Your task to perform on an android device: toggle wifi Image 0: 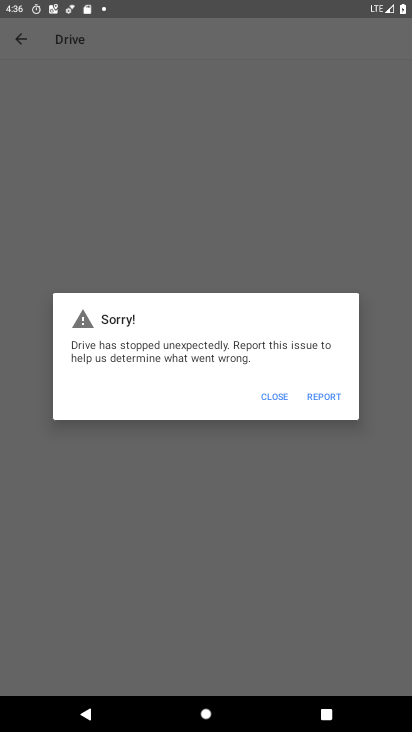
Step 0: press home button
Your task to perform on an android device: toggle wifi Image 1: 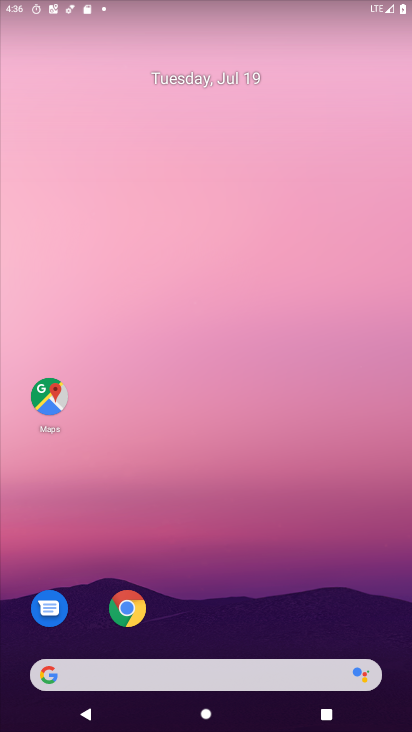
Step 1: drag from (219, 681) to (279, 219)
Your task to perform on an android device: toggle wifi Image 2: 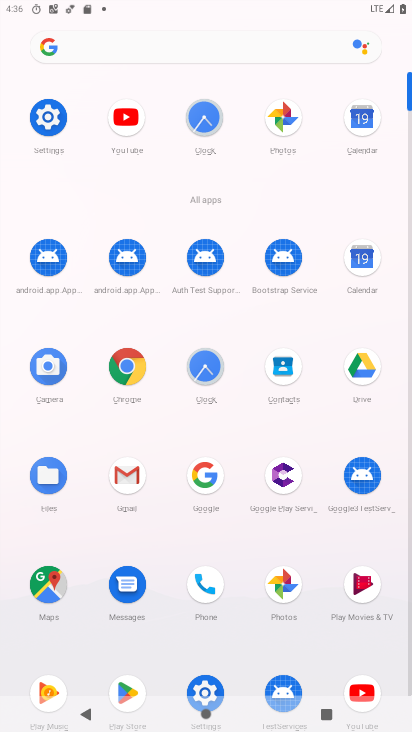
Step 2: click (48, 115)
Your task to perform on an android device: toggle wifi Image 3: 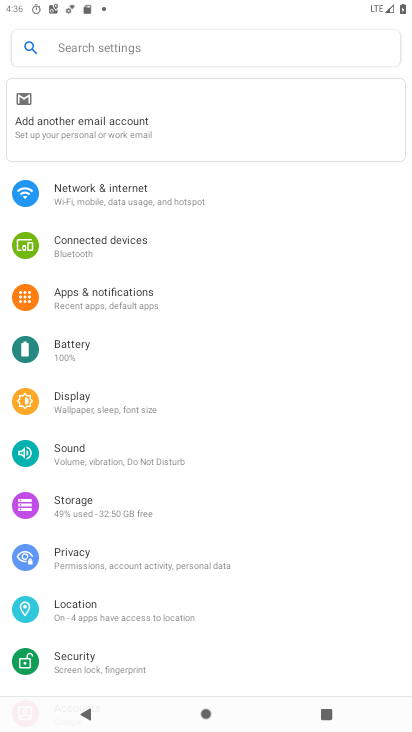
Step 3: click (142, 202)
Your task to perform on an android device: toggle wifi Image 4: 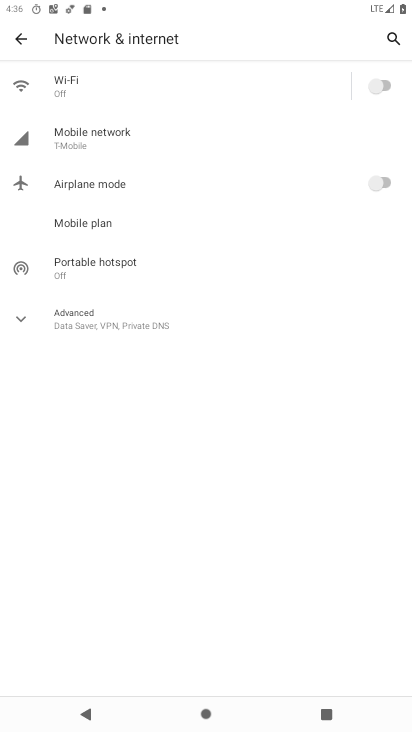
Step 4: click (385, 86)
Your task to perform on an android device: toggle wifi Image 5: 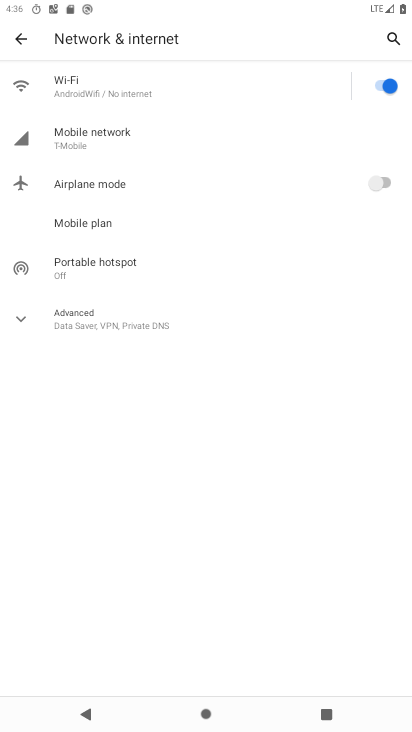
Step 5: task complete